Your task to perform on an android device: Show me popular games on the Play Store Image 0: 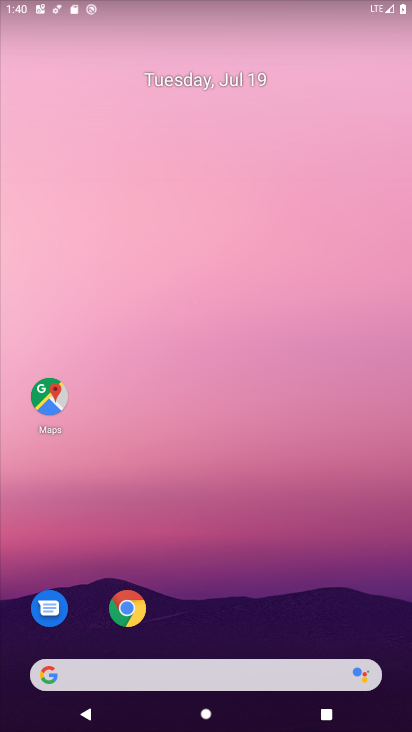
Step 0: drag from (281, 492) to (366, 144)
Your task to perform on an android device: Show me popular games on the Play Store Image 1: 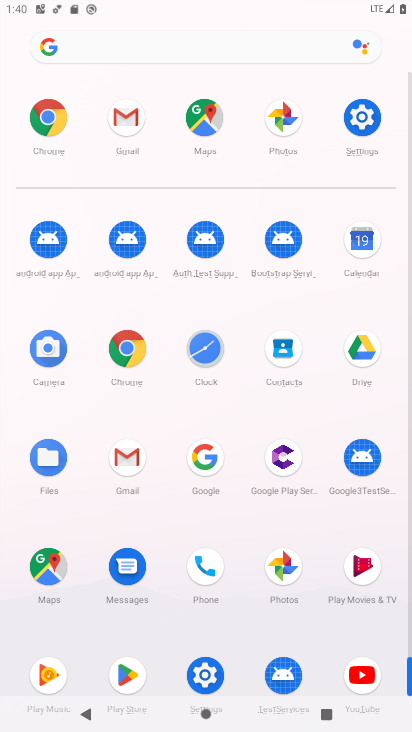
Step 1: drag from (158, 199) to (213, 8)
Your task to perform on an android device: Show me popular games on the Play Store Image 2: 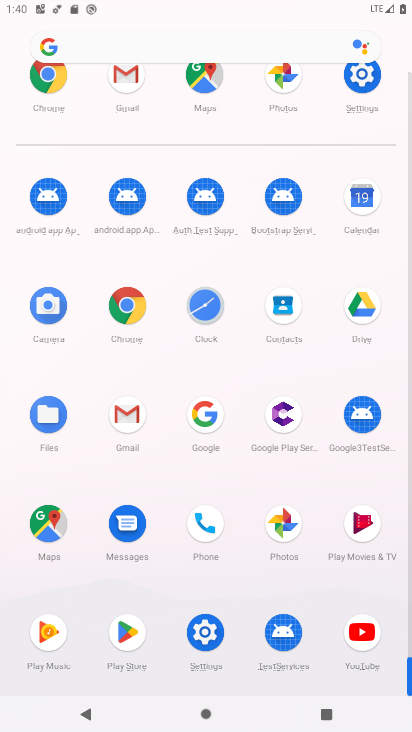
Step 2: click (132, 641)
Your task to perform on an android device: Show me popular games on the Play Store Image 3: 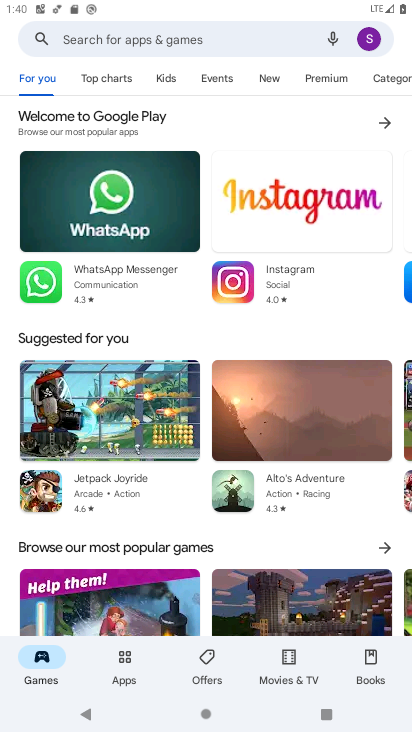
Step 3: click (378, 549)
Your task to perform on an android device: Show me popular games on the Play Store Image 4: 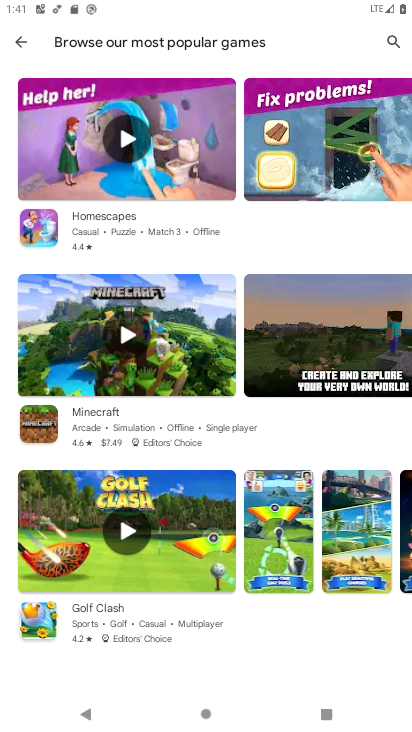
Step 4: task complete